Your task to perform on an android device: toggle wifi Image 0: 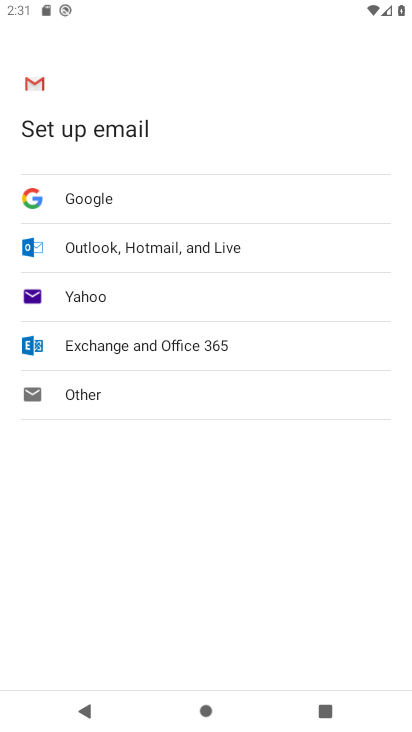
Step 0: press home button
Your task to perform on an android device: toggle wifi Image 1: 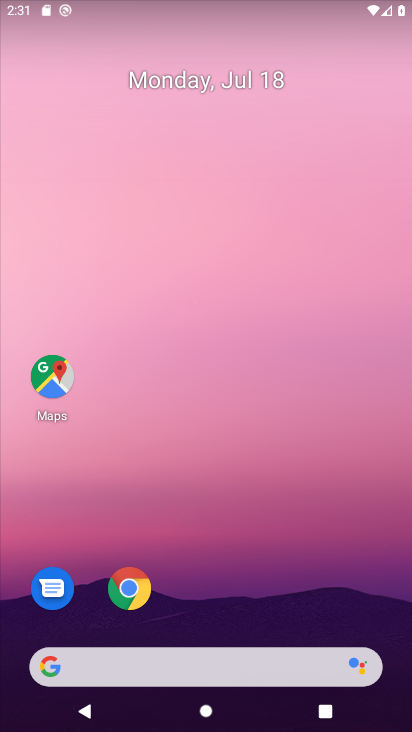
Step 1: drag from (251, 620) to (233, 108)
Your task to perform on an android device: toggle wifi Image 2: 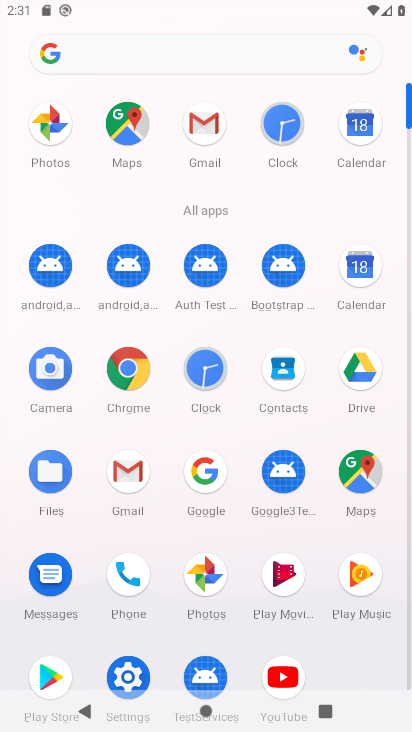
Step 2: click (128, 666)
Your task to perform on an android device: toggle wifi Image 3: 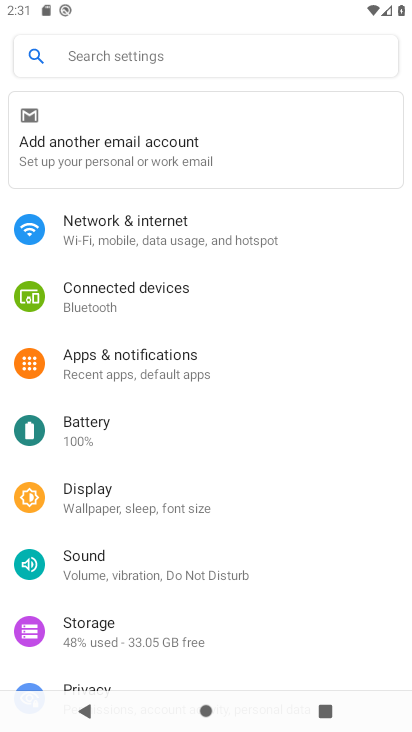
Step 3: click (229, 232)
Your task to perform on an android device: toggle wifi Image 4: 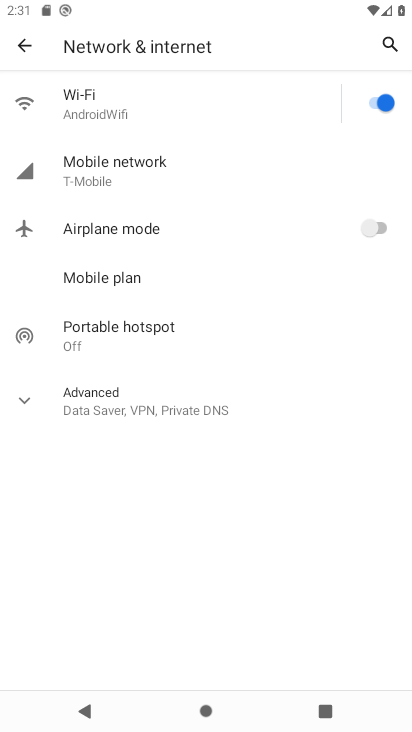
Step 4: click (379, 104)
Your task to perform on an android device: toggle wifi Image 5: 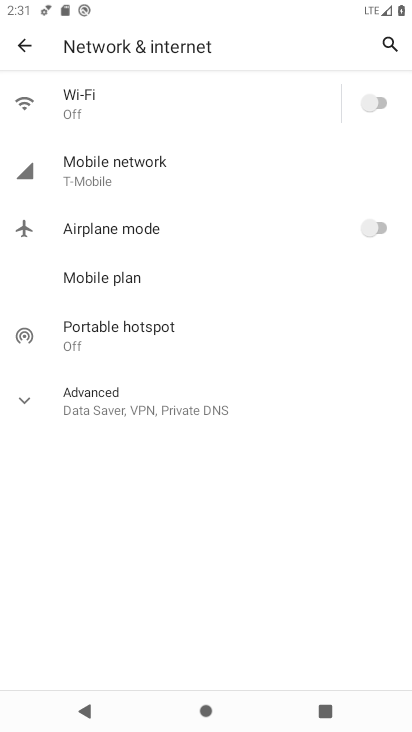
Step 5: task complete